Your task to perform on an android device: Show me the alarms in the clock app Image 0: 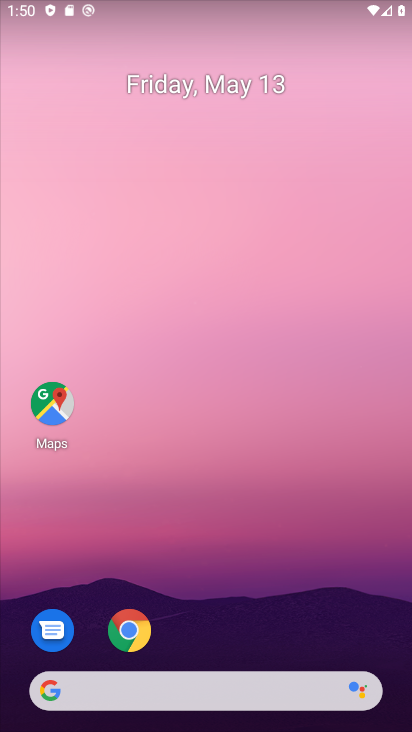
Step 0: click (282, 578)
Your task to perform on an android device: Show me the alarms in the clock app Image 1: 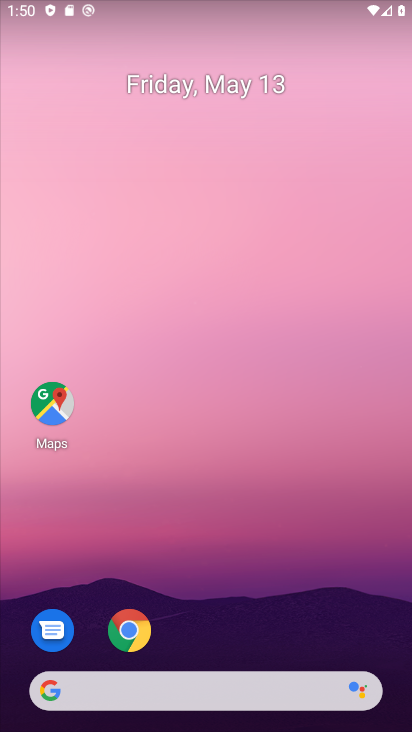
Step 1: drag from (275, 612) to (245, 86)
Your task to perform on an android device: Show me the alarms in the clock app Image 2: 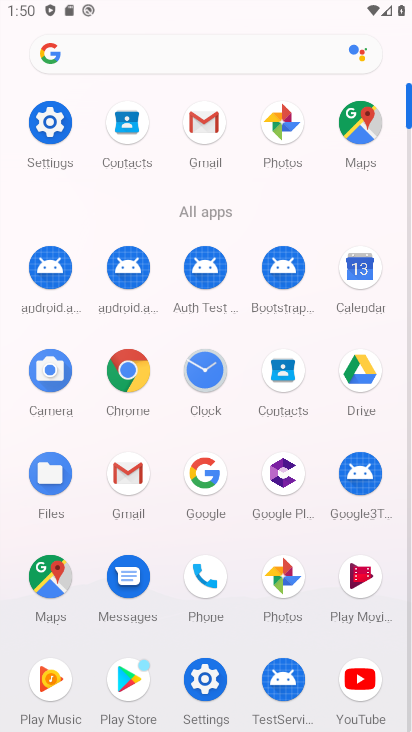
Step 2: click (199, 364)
Your task to perform on an android device: Show me the alarms in the clock app Image 3: 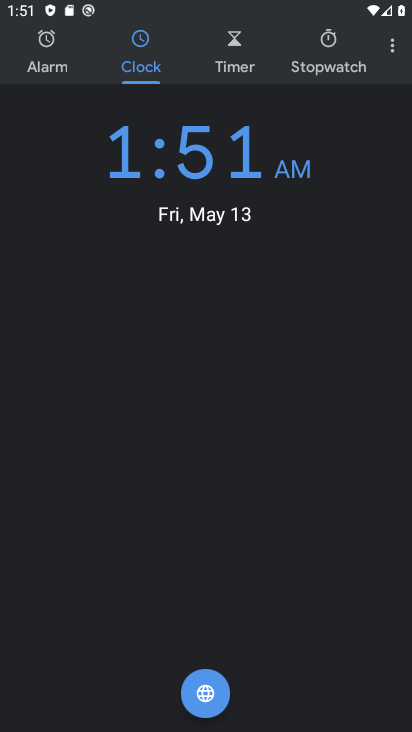
Step 3: click (51, 41)
Your task to perform on an android device: Show me the alarms in the clock app Image 4: 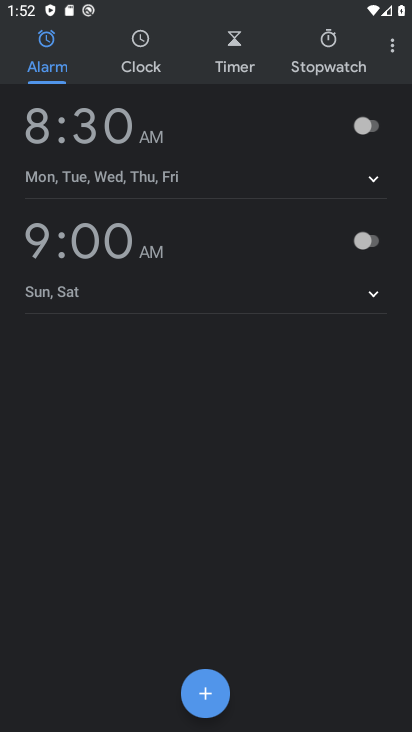
Step 4: task complete